Your task to perform on an android device: Go to Google maps Image 0: 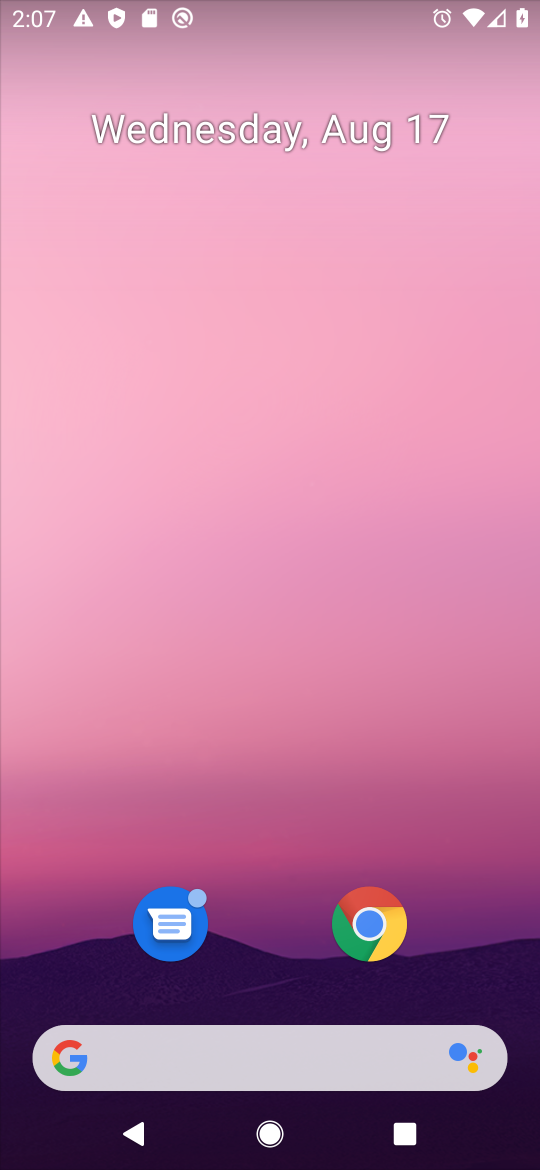
Step 0: drag from (291, 1006) to (277, 101)
Your task to perform on an android device: Go to Google maps Image 1: 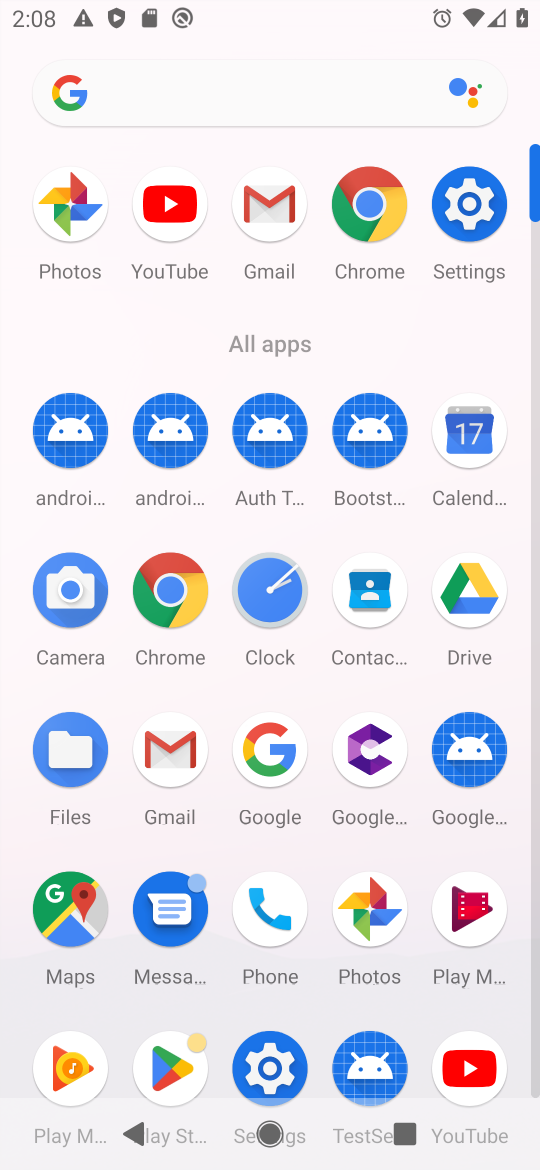
Step 1: click (85, 888)
Your task to perform on an android device: Go to Google maps Image 2: 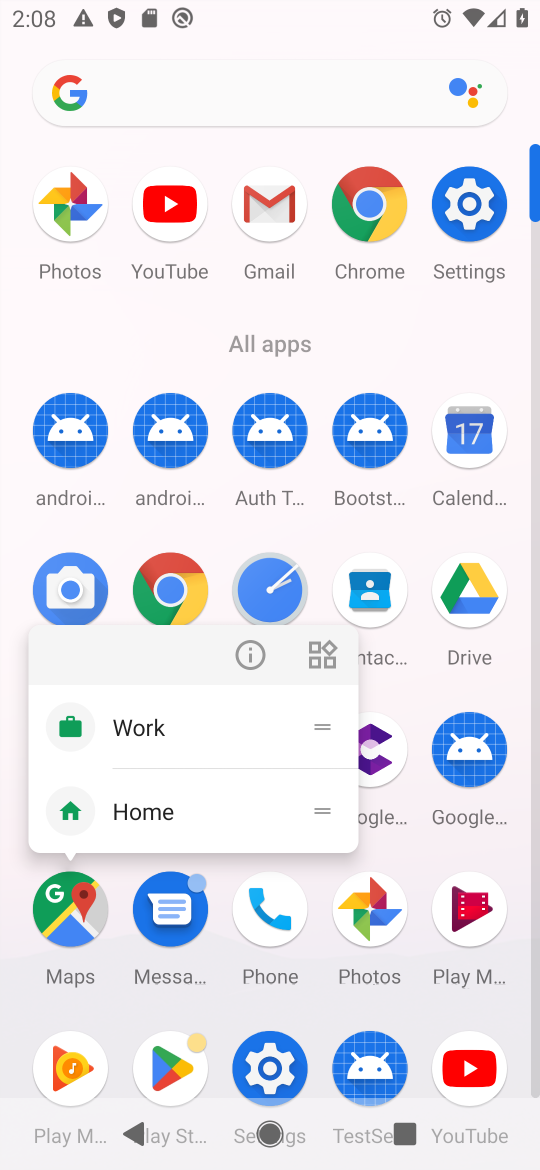
Step 2: click (40, 936)
Your task to perform on an android device: Go to Google maps Image 3: 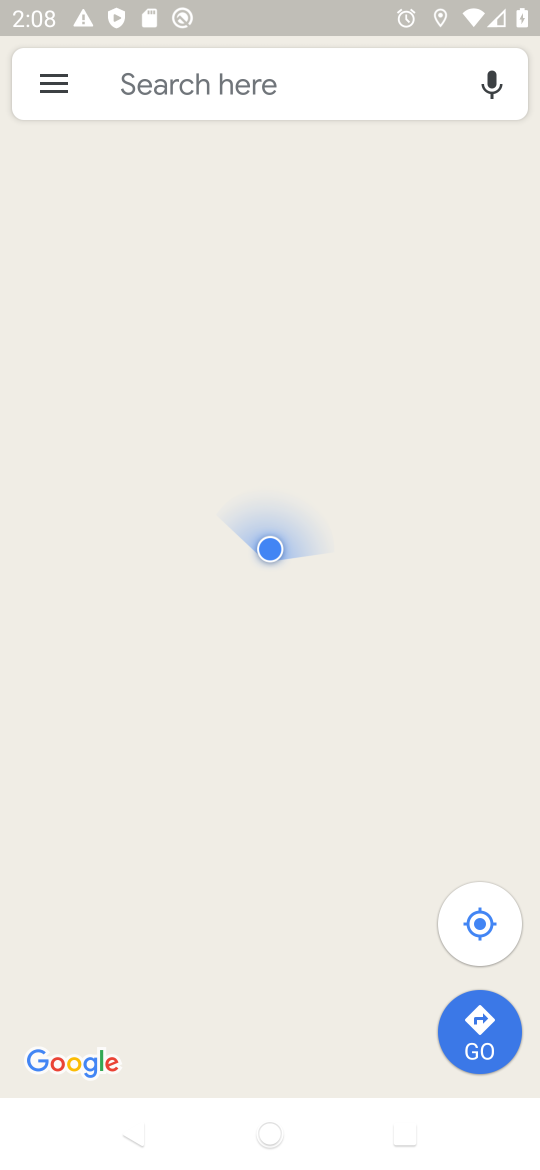
Step 3: task complete